Your task to perform on an android device: turn on translation in the chrome app Image 0: 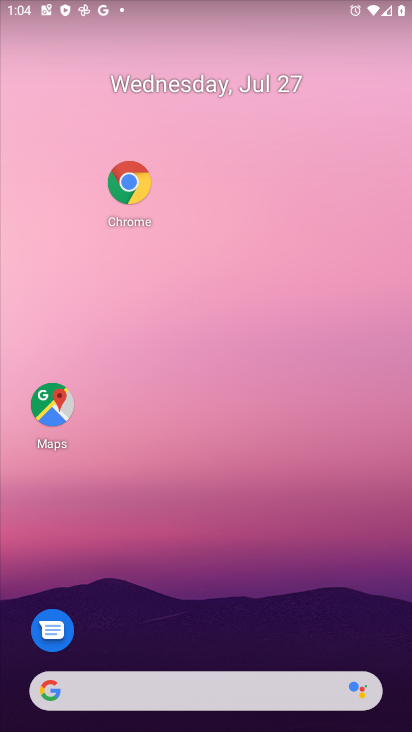
Step 0: drag from (253, 728) to (301, 175)
Your task to perform on an android device: turn on translation in the chrome app Image 1: 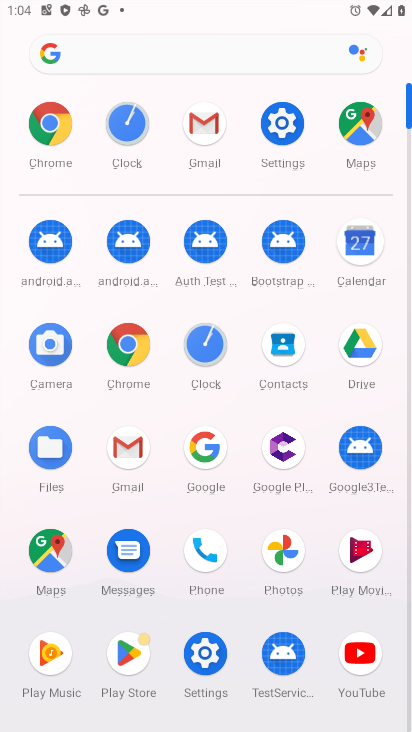
Step 1: click (42, 125)
Your task to perform on an android device: turn on translation in the chrome app Image 2: 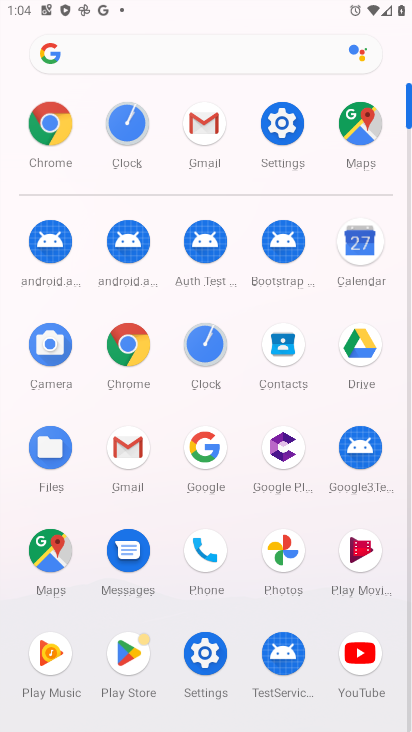
Step 2: click (42, 125)
Your task to perform on an android device: turn on translation in the chrome app Image 3: 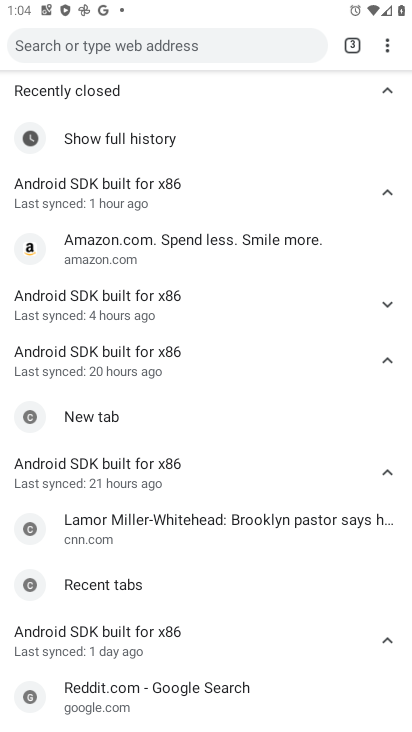
Step 3: click (395, 43)
Your task to perform on an android device: turn on translation in the chrome app Image 4: 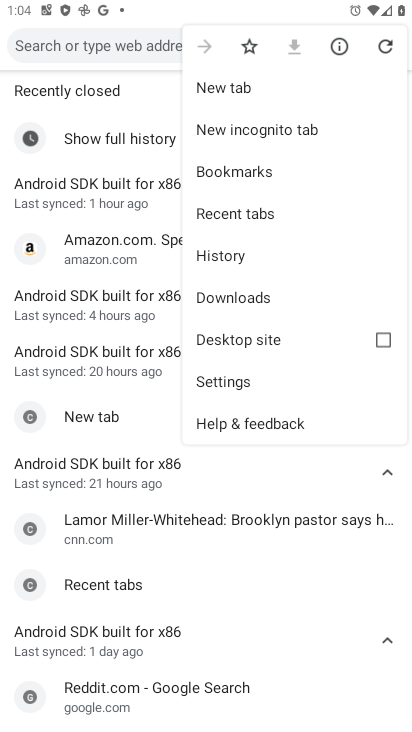
Step 4: click (240, 379)
Your task to perform on an android device: turn on translation in the chrome app Image 5: 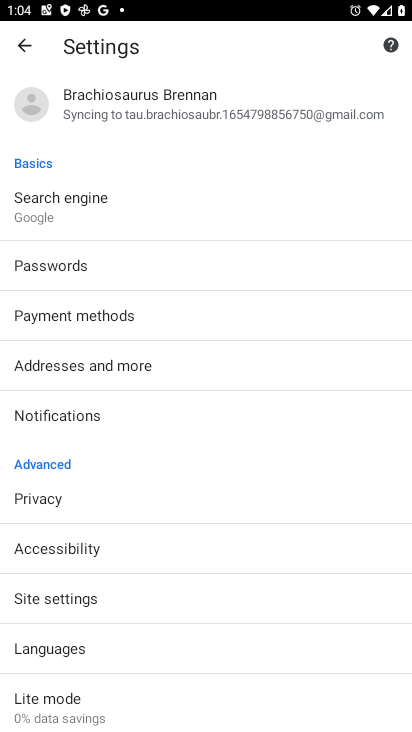
Step 5: click (99, 654)
Your task to perform on an android device: turn on translation in the chrome app Image 6: 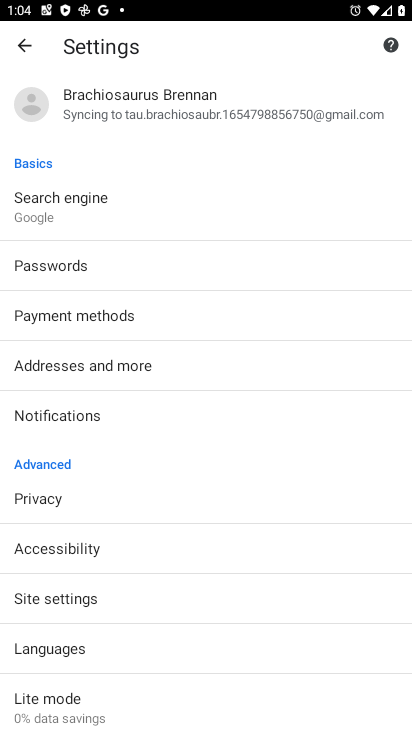
Step 6: click (99, 654)
Your task to perform on an android device: turn on translation in the chrome app Image 7: 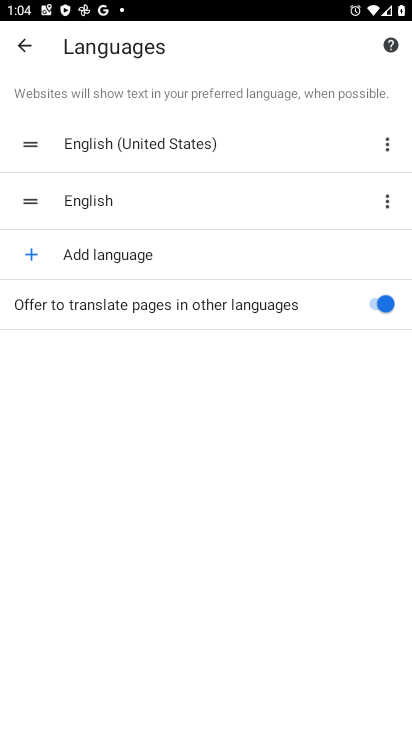
Step 7: task complete